Your task to perform on an android device: Go to wifi settings Image 0: 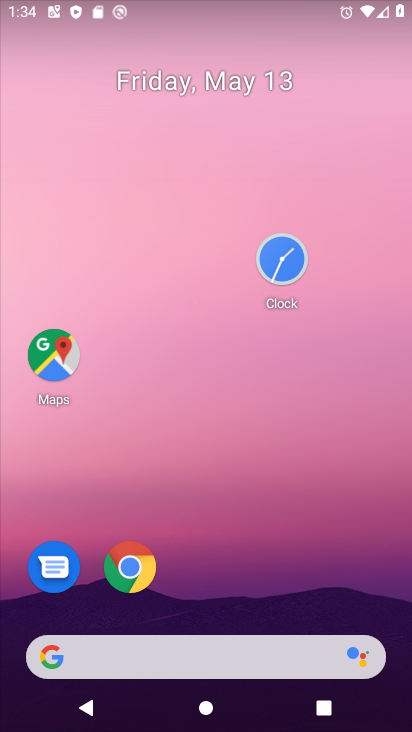
Step 0: drag from (347, 569) to (301, 26)
Your task to perform on an android device: Go to wifi settings Image 1: 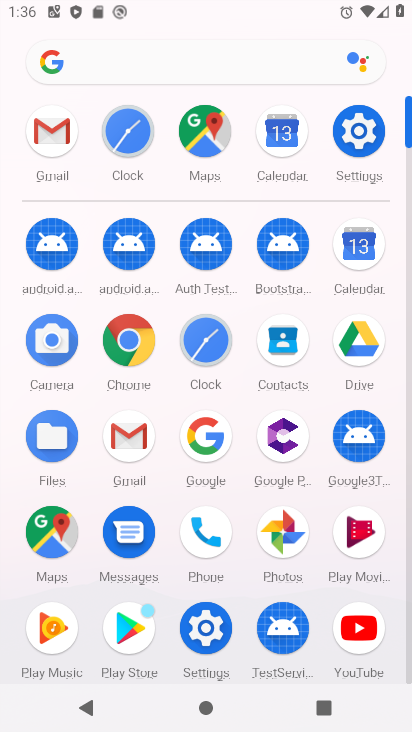
Step 1: click (342, 158)
Your task to perform on an android device: Go to wifi settings Image 2: 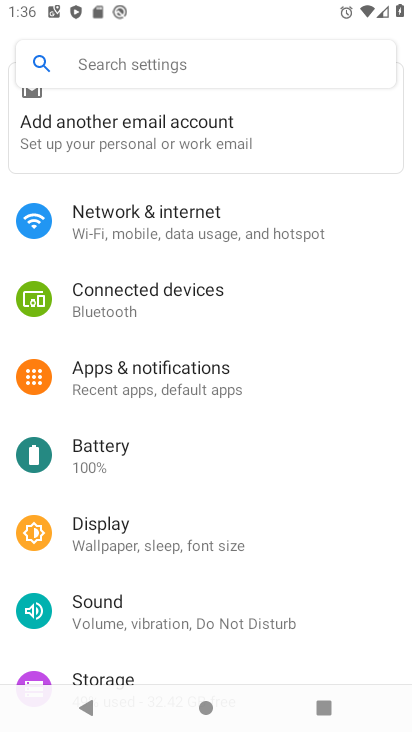
Step 2: click (238, 226)
Your task to perform on an android device: Go to wifi settings Image 3: 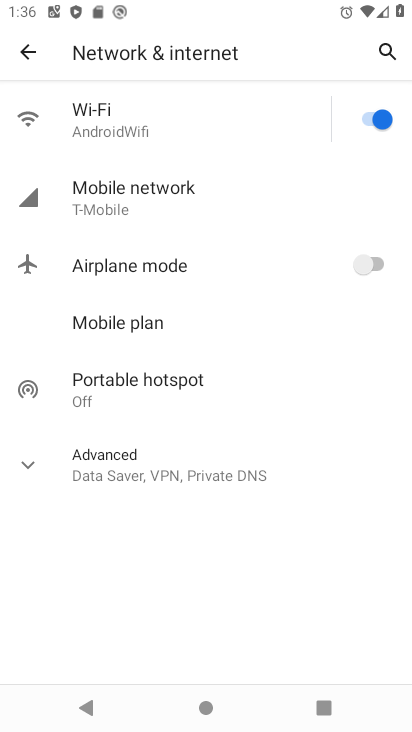
Step 3: click (216, 134)
Your task to perform on an android device: Go to wifi settings Image 4: 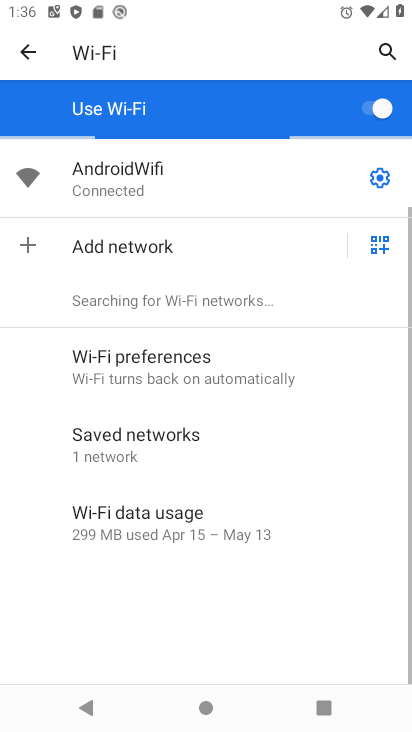
Step 4: task complete